Your task to perform on an android device: Open my contact list Image 0: 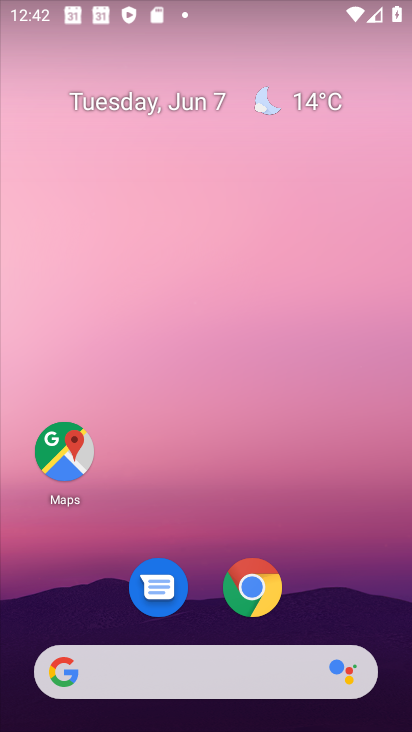
Step 0: drag from (276, 641) to (301, 130)
Your task to perform on an android device: Open my contact list Image 1: 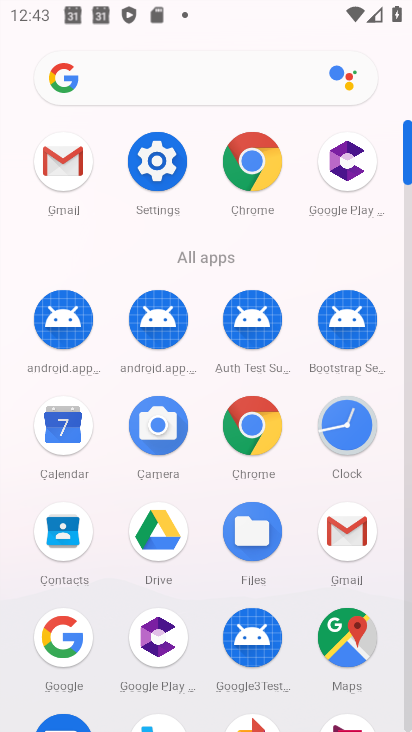
Step 1: click (68, 538)
Your task to perform on an android device: Open my contact list Image 2: 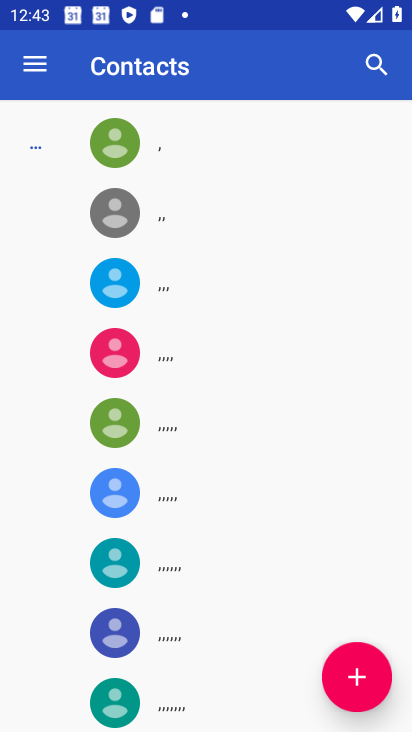
Step 2: task complete